Your task to perform on an android device: Toggle the flashlight Image 0: 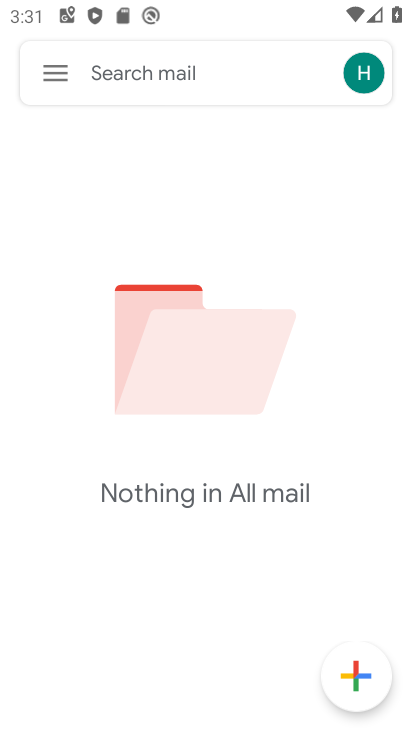
Step 0: press home button
Your task to perform on an android device: Toggle the flashlight Image 1: 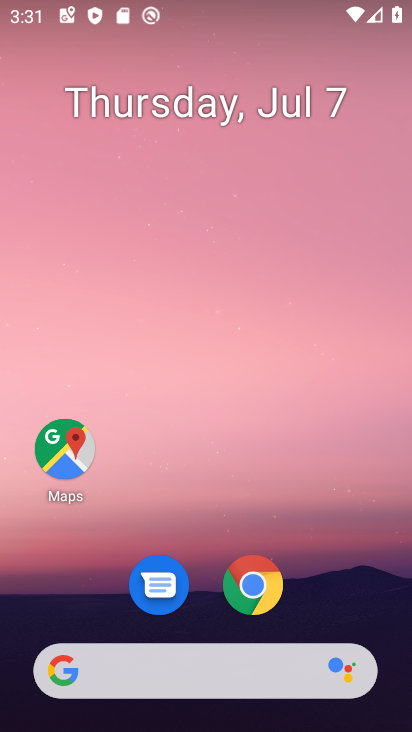
Step 1: drag from (272, 527) to (309, 15)
Your task to perform on an android device: Toggle the flashlight Image 2: 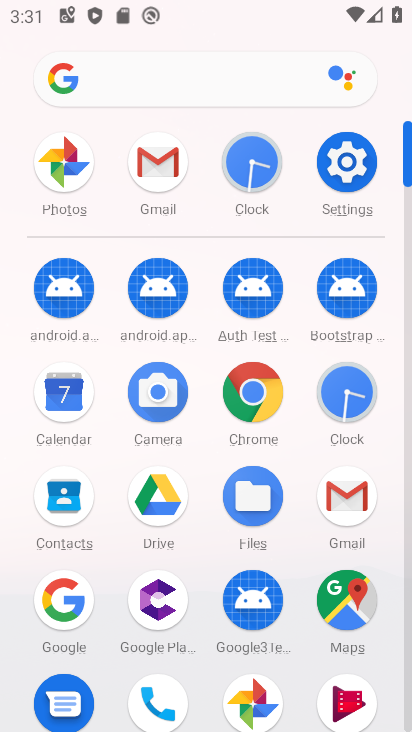
Step 2: click (337, 161)
Your task to perform on an android device: Toggle the flashlight Image 3: 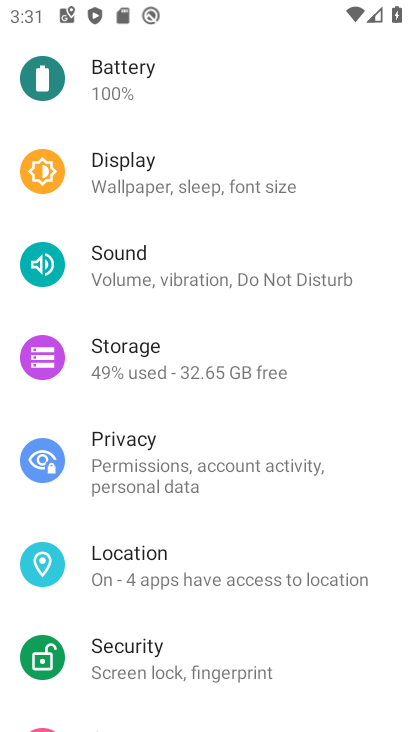
Step 3: drag from (263, 234) to (229, 659)
Your task to perform on an android device: Toggle the flashlight Image 4: 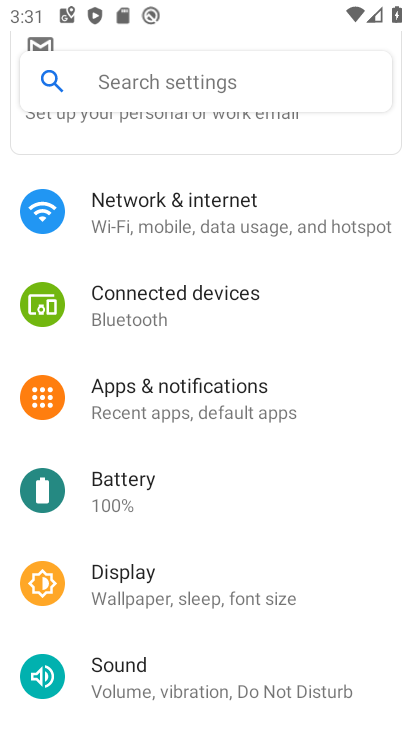
Step 4: drag from (222, 184) to (224, 718)
Your task to perform on an android device: Toggle the flashlight Image 5: 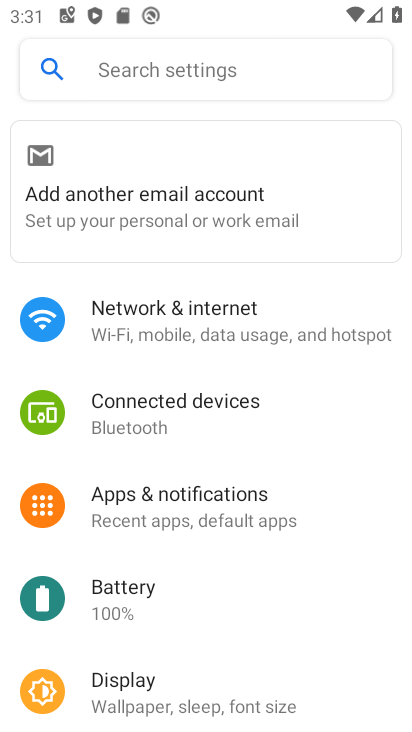
Step 5: click (240, 63)
Your task to perform on an android device: Toggle the flashlight Image 6: 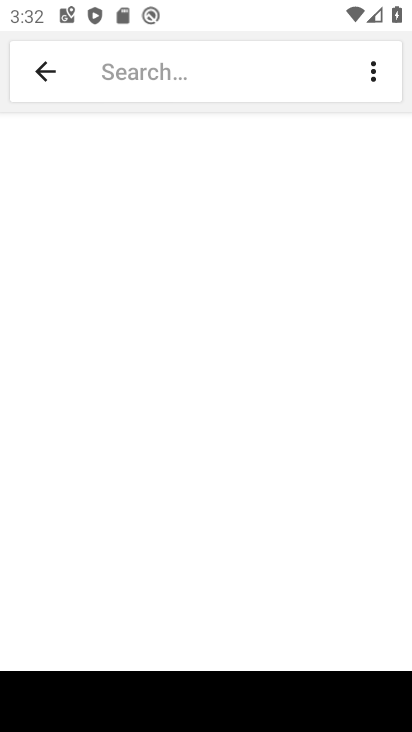
Step 6: type "Flashlight"
Your task to perform on an android device: Toggle the flashlight Image 7: 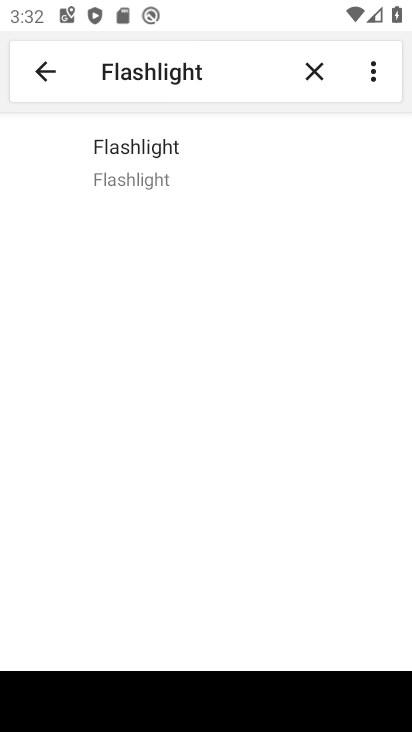
Step 7: click (130, 160)
Your task to perform on an android device: Toggle the flashlight Image 8: 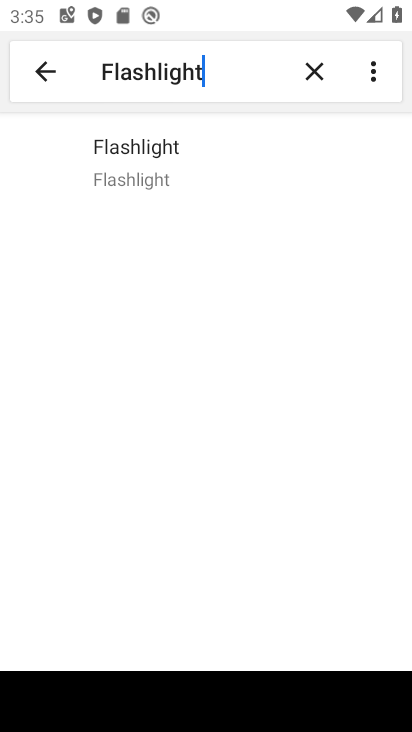
Step 8: task complete